Your task to perform on an android device: Toggle the flashlight Image 0: 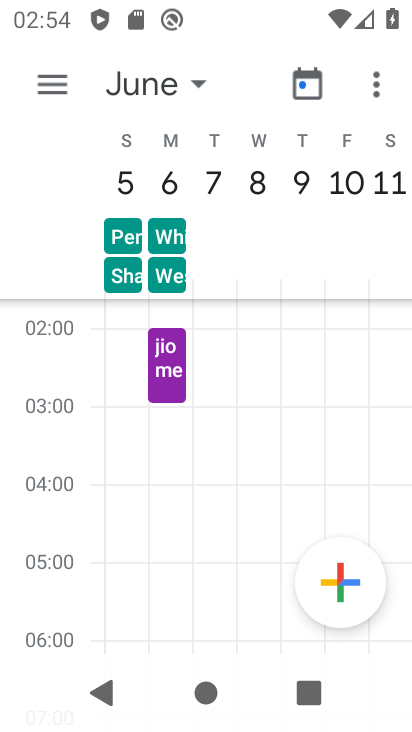
Step 0: drag from (331, 4) to (311, 504)
Your task to perform on an android device: Toggle the flashlight Image 1: 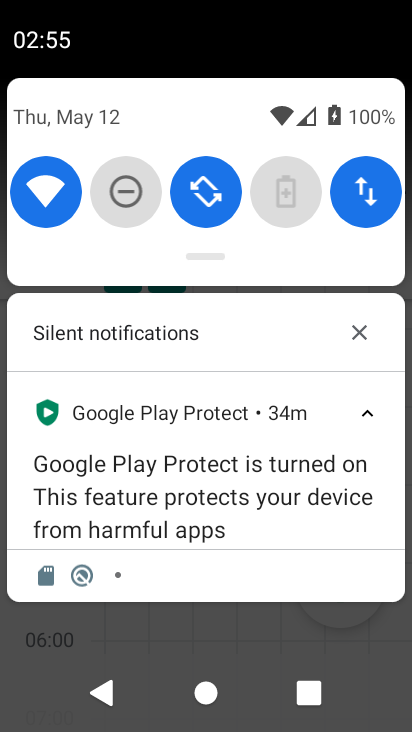
Step 1: drag from (314, 238) to (320, 696)
Your task to perform on an android device: Toggle the flashlight Image 2: 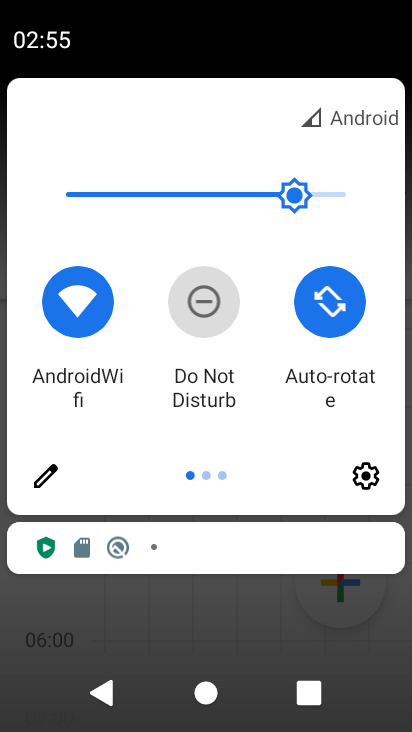
Step 2: click (49, 481)
Your task to perform on an android device: Toggle the flashlight Image 3: 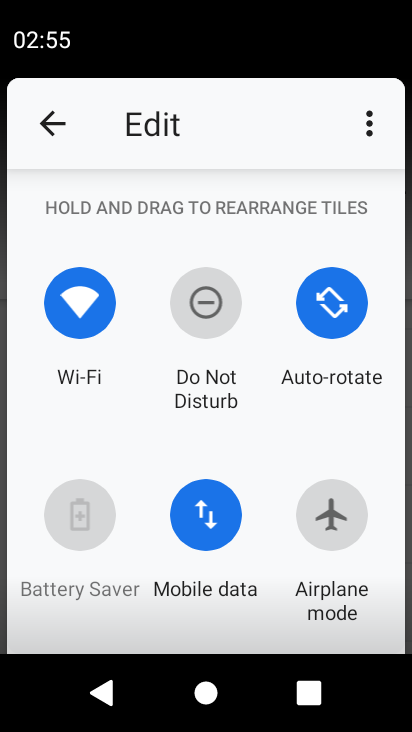
Step 3: task complete